Your task to perform on an android device: check storage Image 0: 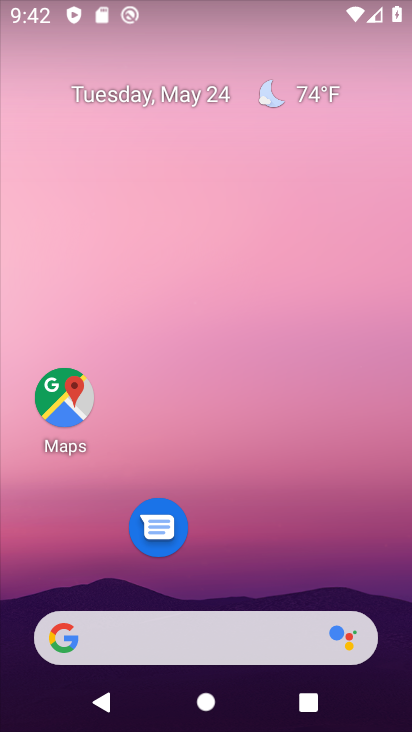
Step 0: drag from (217, 589) to (181, 33)
Your task to perform on an android device: check storage Image 1: 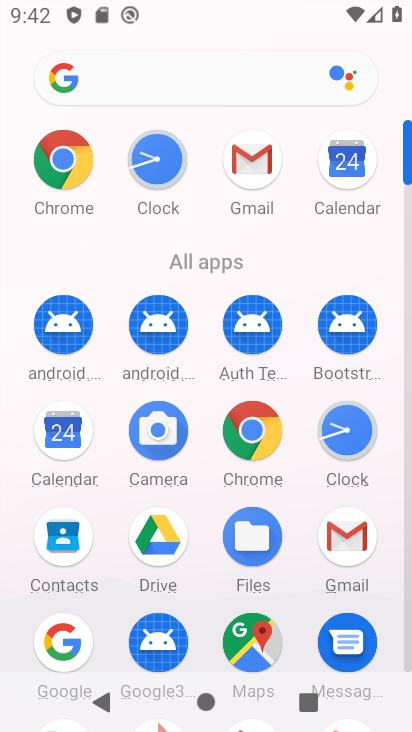
Step 1: drag from (196, 590) to (120, 78)
Your task to perform on an android device: check storage Image 2: 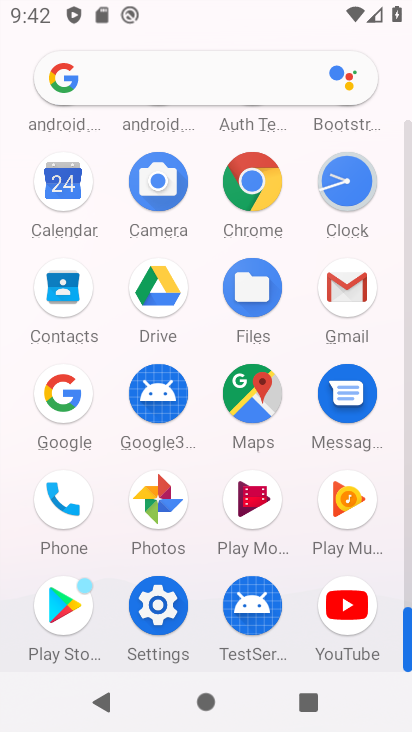
Step 2: click (153, 613)
Your task to perform on an android device: check storage Image 3: 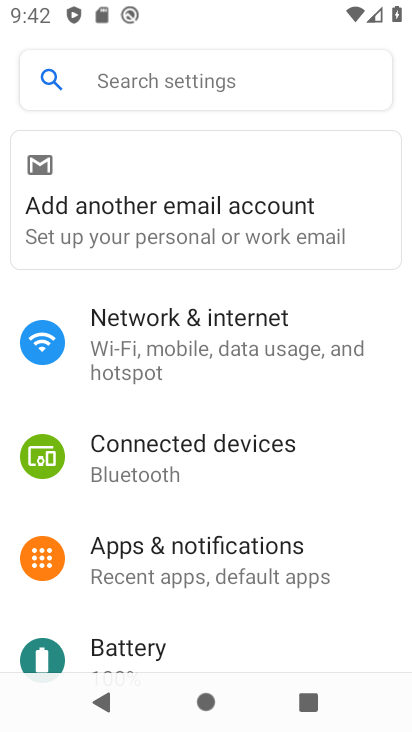
Step 3: drag from (153, 613) to (178, 92)
Your task to perform on an android device: check storage Image 4: 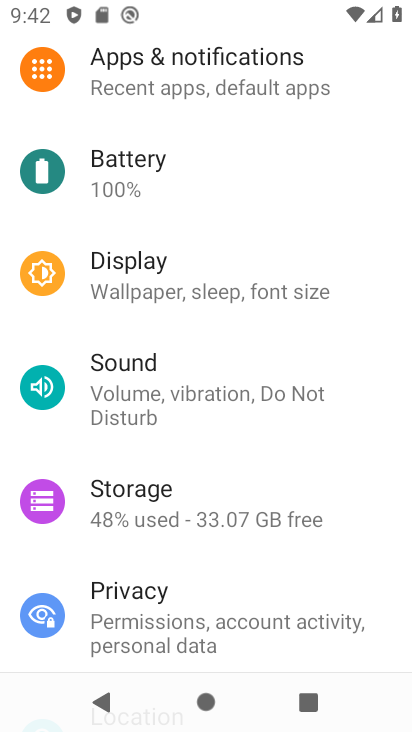
Step 4: click (125, 491)
Your task to perform on an android device: check storage Image 5: 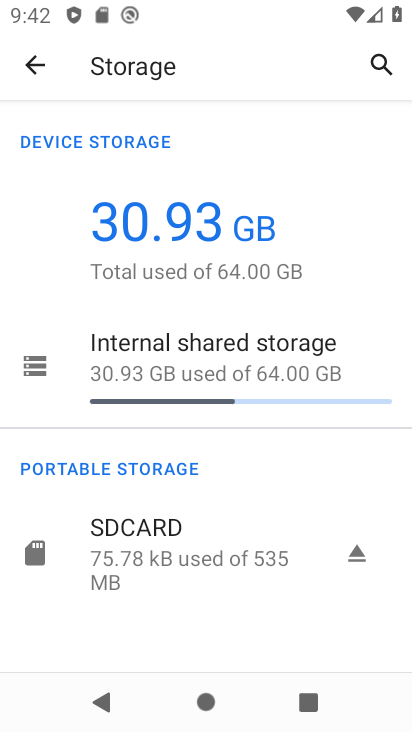
Step 5: click (177, 363)
Your task to perform on an android device: check storage Image 6: 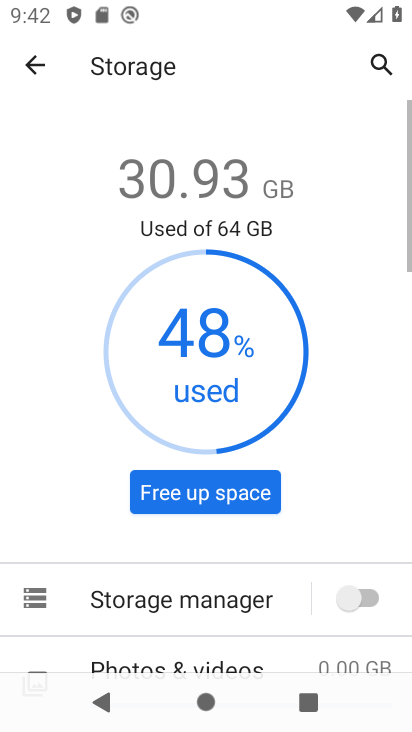
Step 6: task complete